Your task to perform on an android device: toggle javascript in the chrome app Image 0: 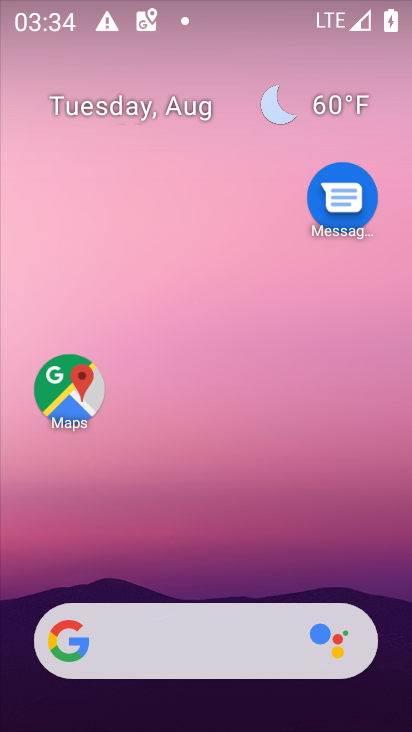
Step 0: drag from (151, 596) to (196, 3)
Your task to perform on an android device: toggle javascript in the chrome app Image 1: 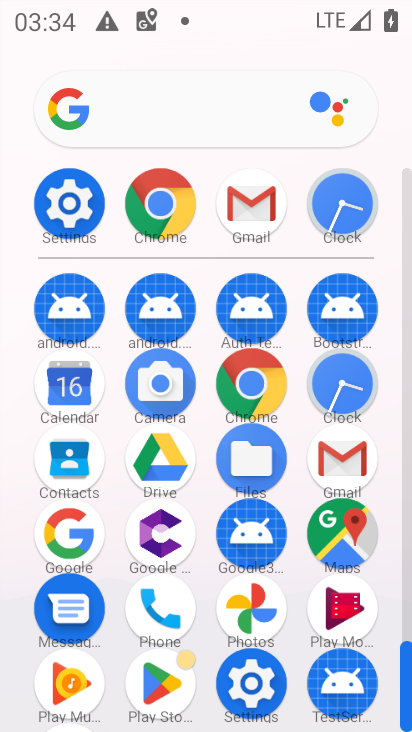
Step 1: click (152, 200)
Your task to perform on an android device: toggle javascript in the chrome app Image 2: 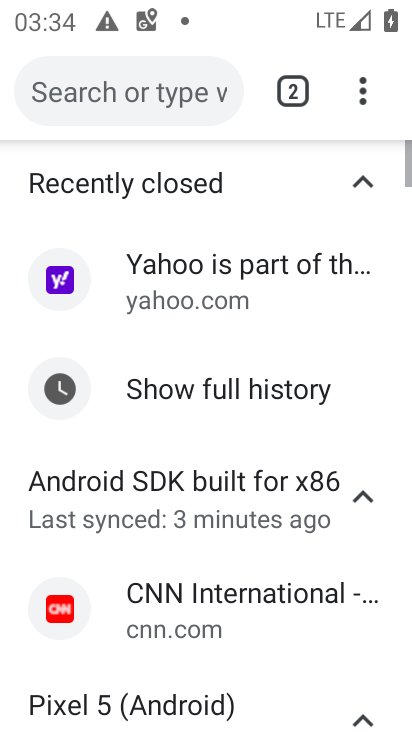
Step 2: click (374, 106)
Your task to perform on an android device: toggle javascript in the chrome app Image 3: 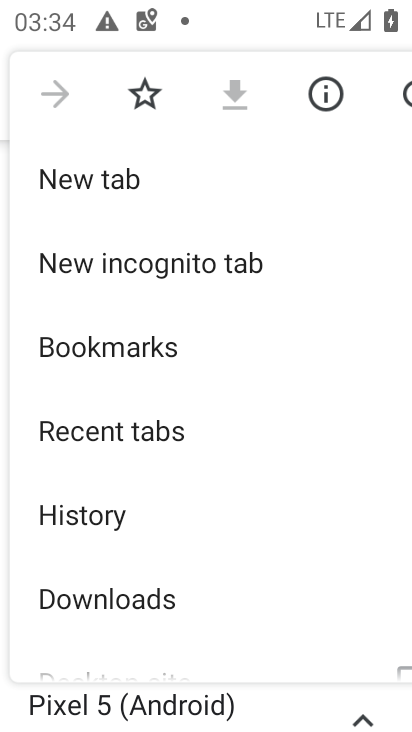
Step 3: drag from (185, 650) to (178, 355)
Your task to perform on an android device: toggle javascript in the chrome app Image 4: 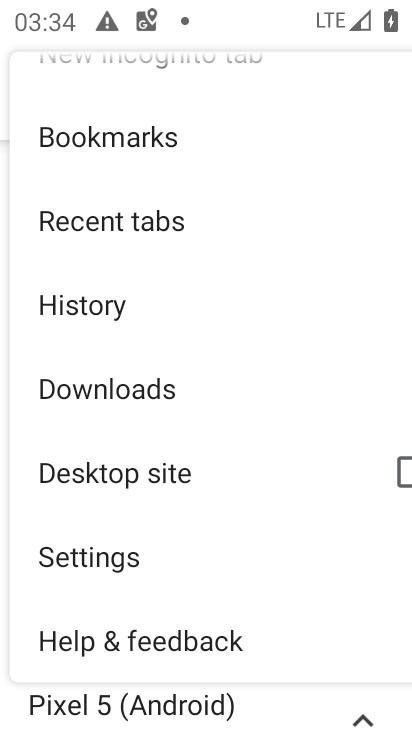
Step 4: click (150, 576)
Your task to perform on an android device: toggle javascript in the chrome app Image 5: 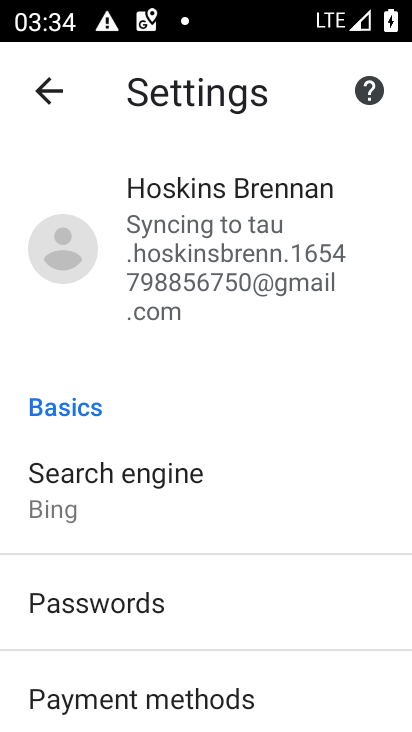
Step 5: drag from (165, 565) to (174, 198)
Your task to perform on an android device: toggle javascript in the chrome app Image 6: 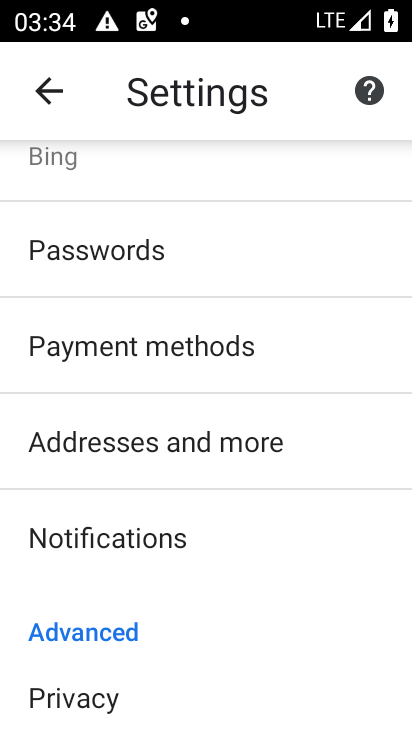
Step 6: drag from (189, 606) to (204, 333)
Your task to perform on an android device: toggle javascript in the chrome app Image 7: 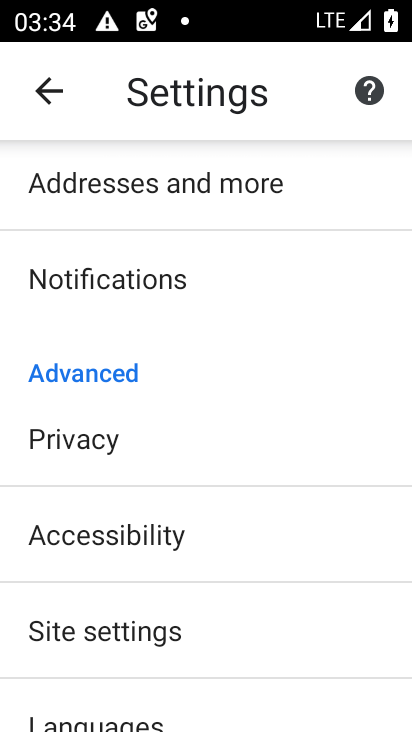
Step 7: click (201, 649)
Your task to perform on an android device: toggle javascript in the chrome app Image 8: 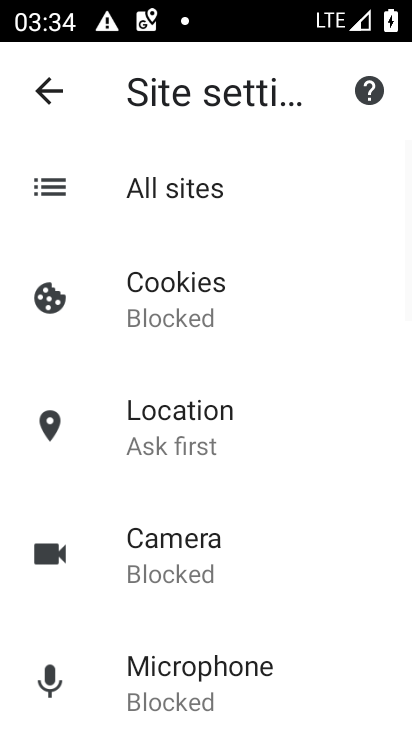
Step 8: drag from (201, 649) to (238, 177)
Your task to perform on an android device: toggle javascript in the chrome app Image 9: 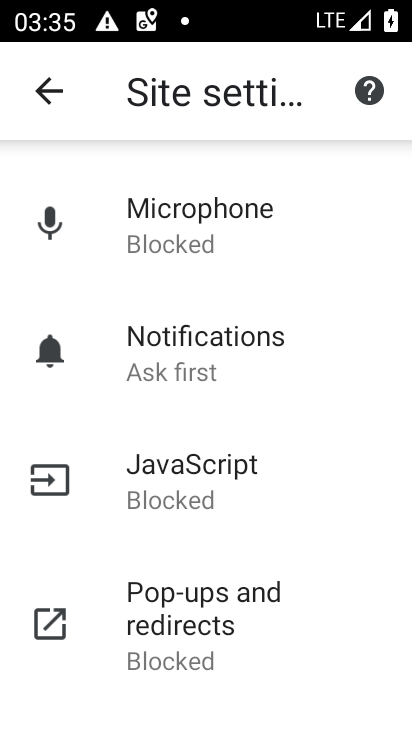
Step 9: click (239, 505)
Your task to perform on an android device: toggle javascript in the chrome app Image 10: 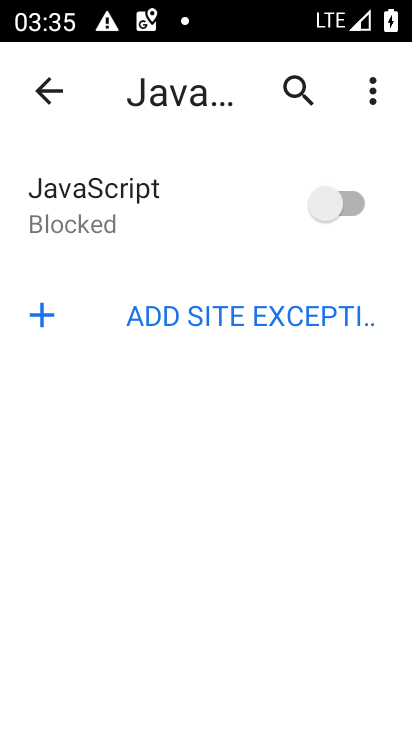
Step 10: click (308, 193)
Your task to perform on an android device: toggle javascript in the chrome app Image 11: 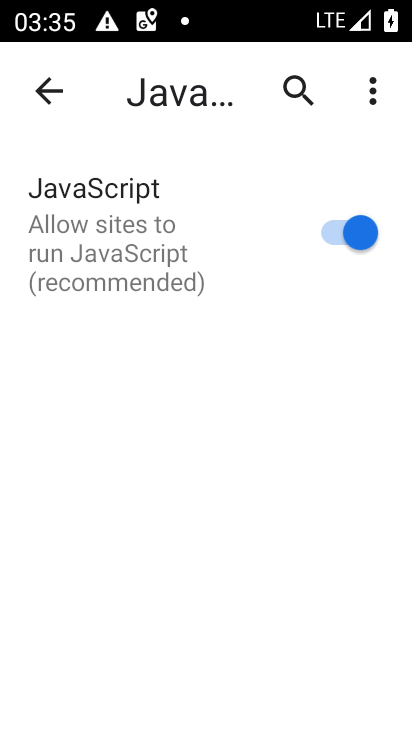
Step 11: task complete